Your task to perform on an android device: change notifications settings Image 0: 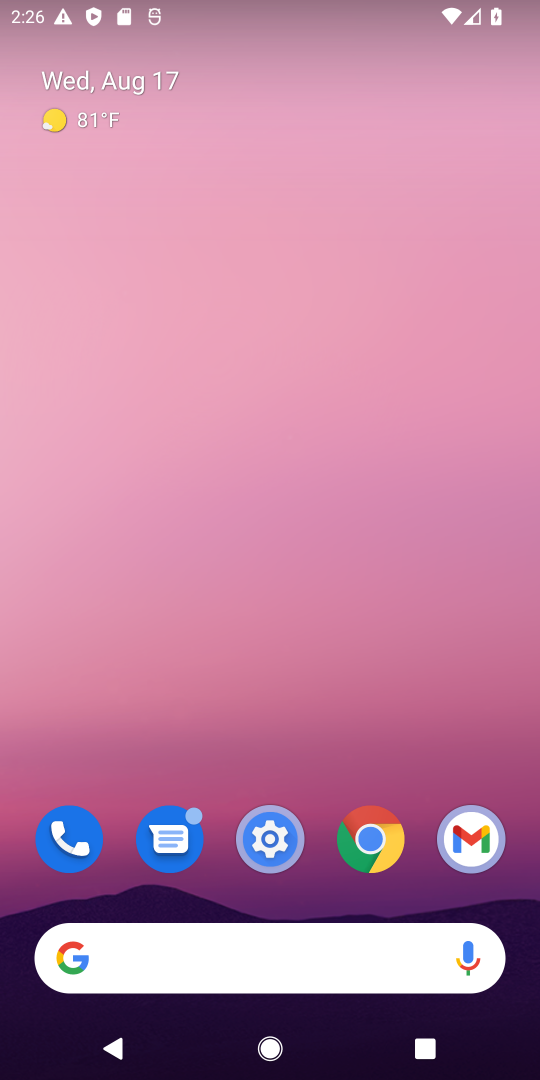
Step 0: drag from (288, 702) to (279, 73)
Your task to perform on an android device: change notifications settings Image 1: 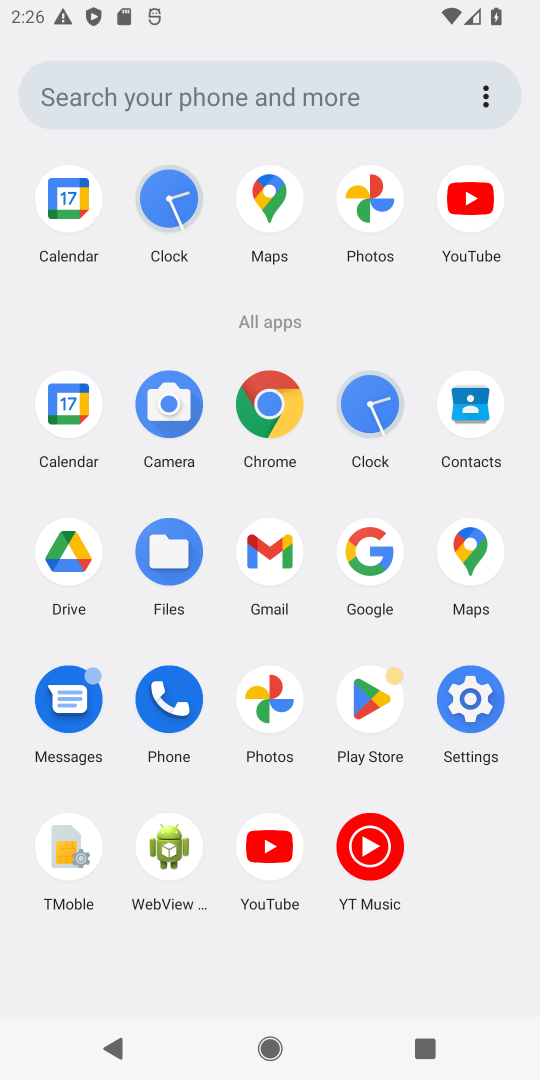
Step 1: click (471, 703)
Your task to perform on an android device: change notifications settings Image 2: 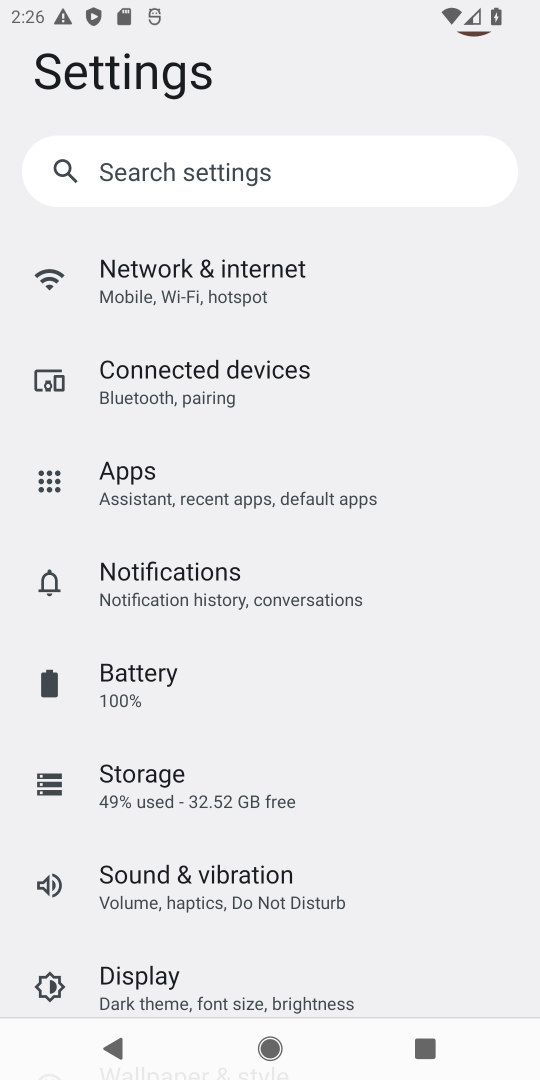
Step 2: click (134, 583)
Your task to perform on an android device: change notifications settings Image 3: 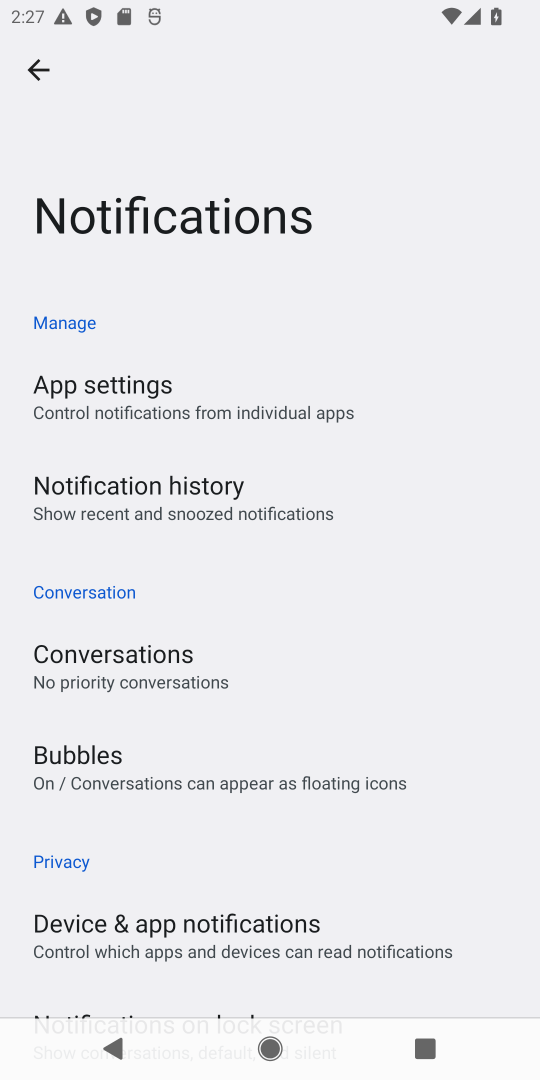
Step 3: drag from (171, 917) to (230, 440)
Your task to perform on an android device: change notifications settings Image 4: 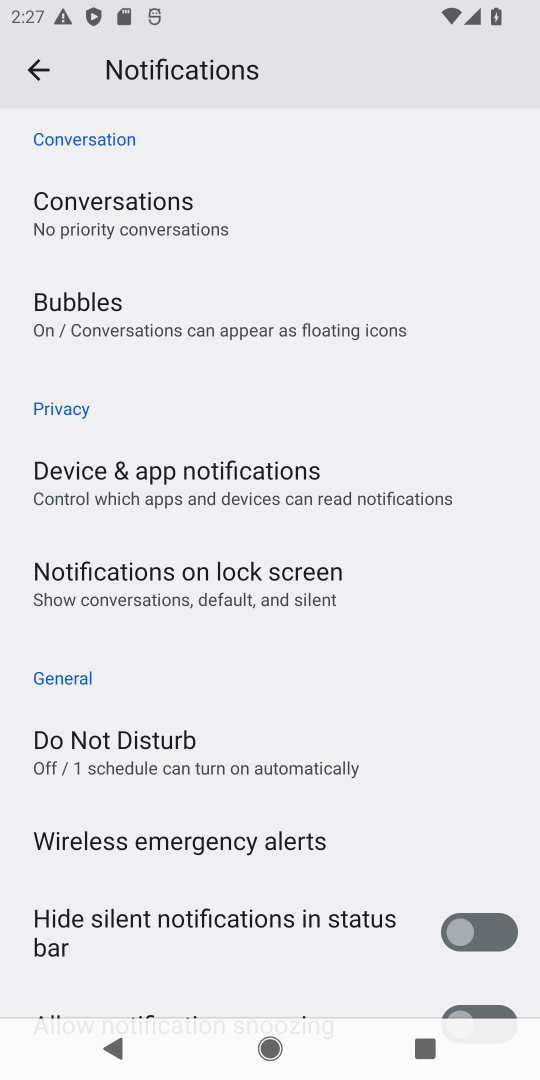
Step 4: click (477, 936)
Your task to perform on an android device: change notifications settings Image 5: 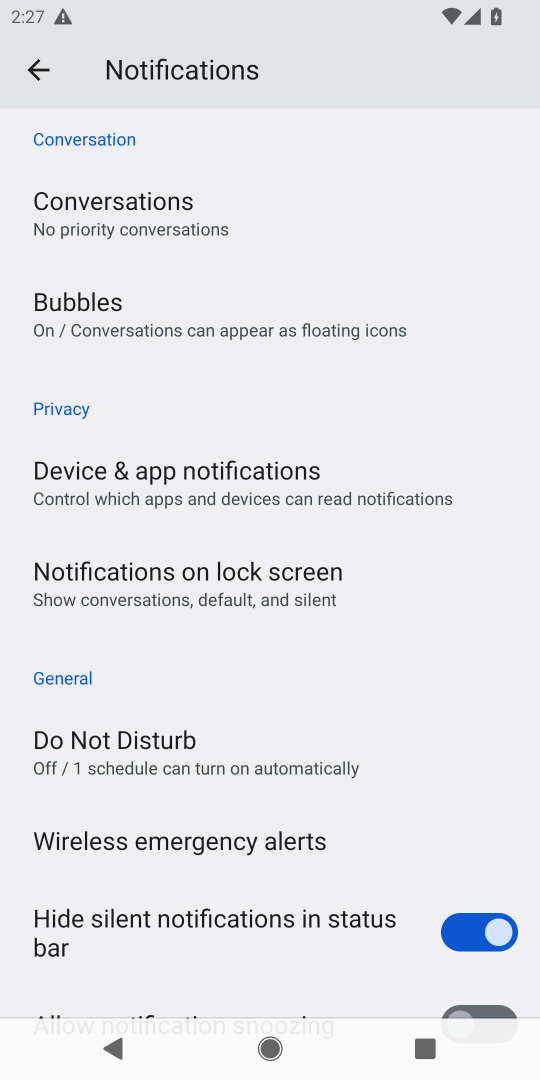
Step 5: task complete